Your task to perform on an android device: delete browsing data in the chrome app Image 0: 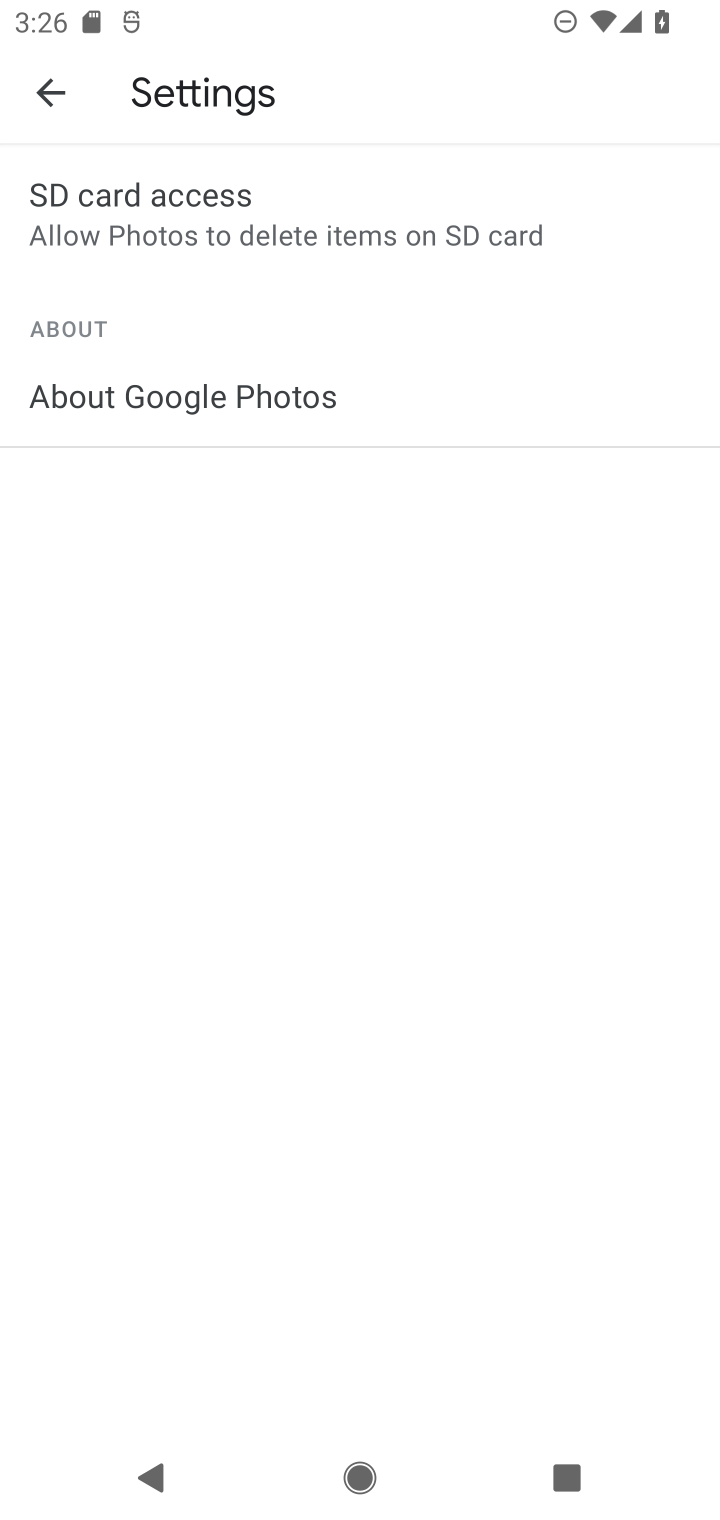
Step 0: press home button
Your task to perform on an android device: delete browsing data in the chrome app Image 1: 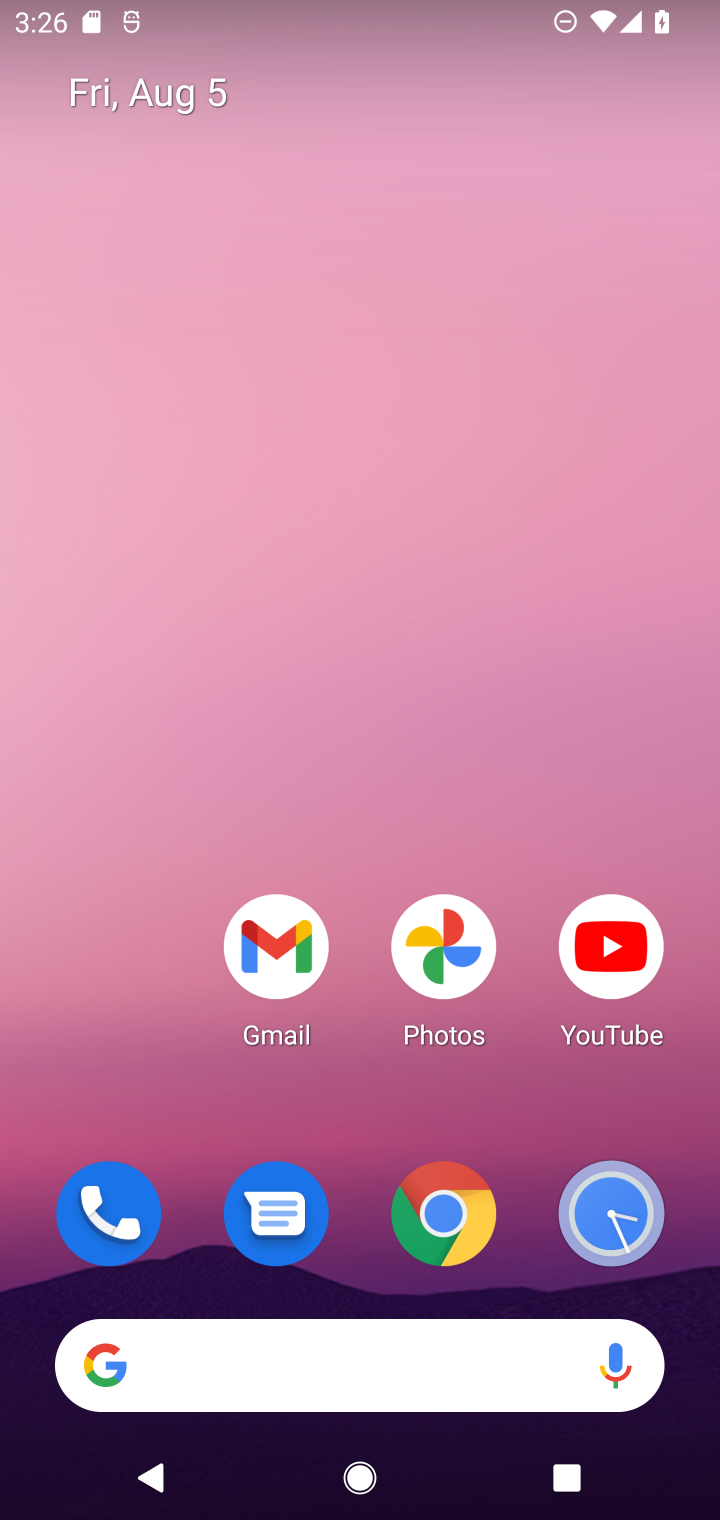
Step 1: click (445, 1212)
Your task to perform on an android device: delete browsing data in the chrome app Image 2: 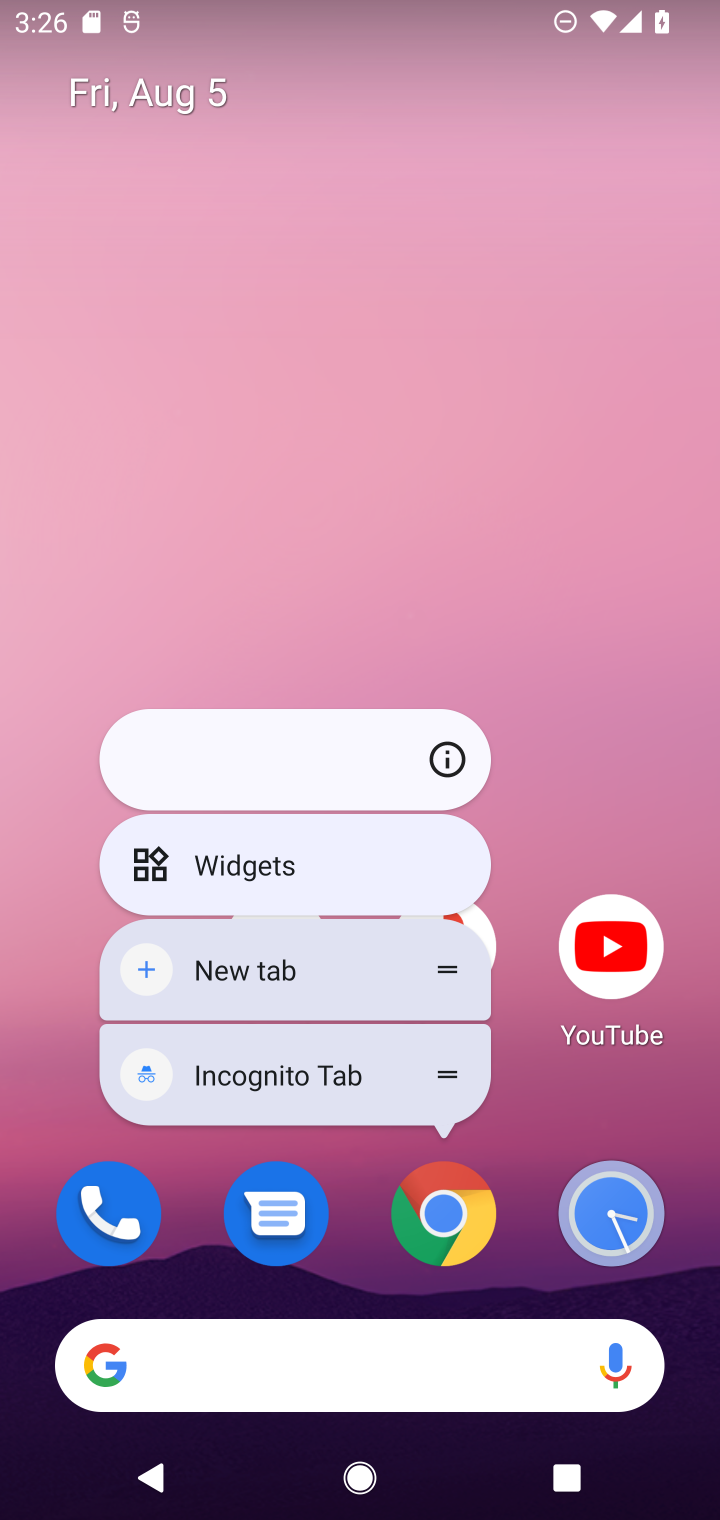
Step 2: click (445, 1212)
Your task to perform on an android device: delete browsing data in the chrome app Image 3: 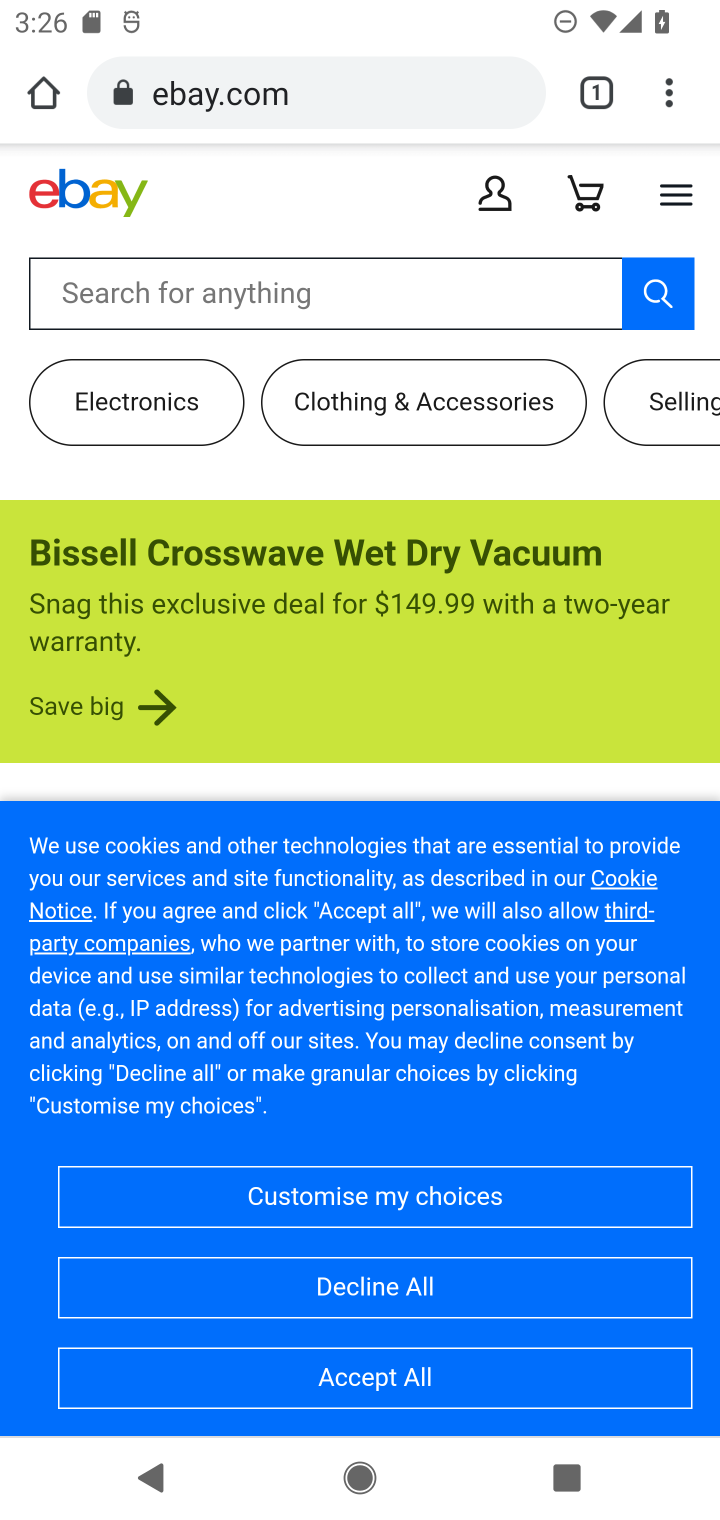
Step 3: click (665, 84)
Your task to perform on an android device: delete browsing data in the chrome app Image 4: 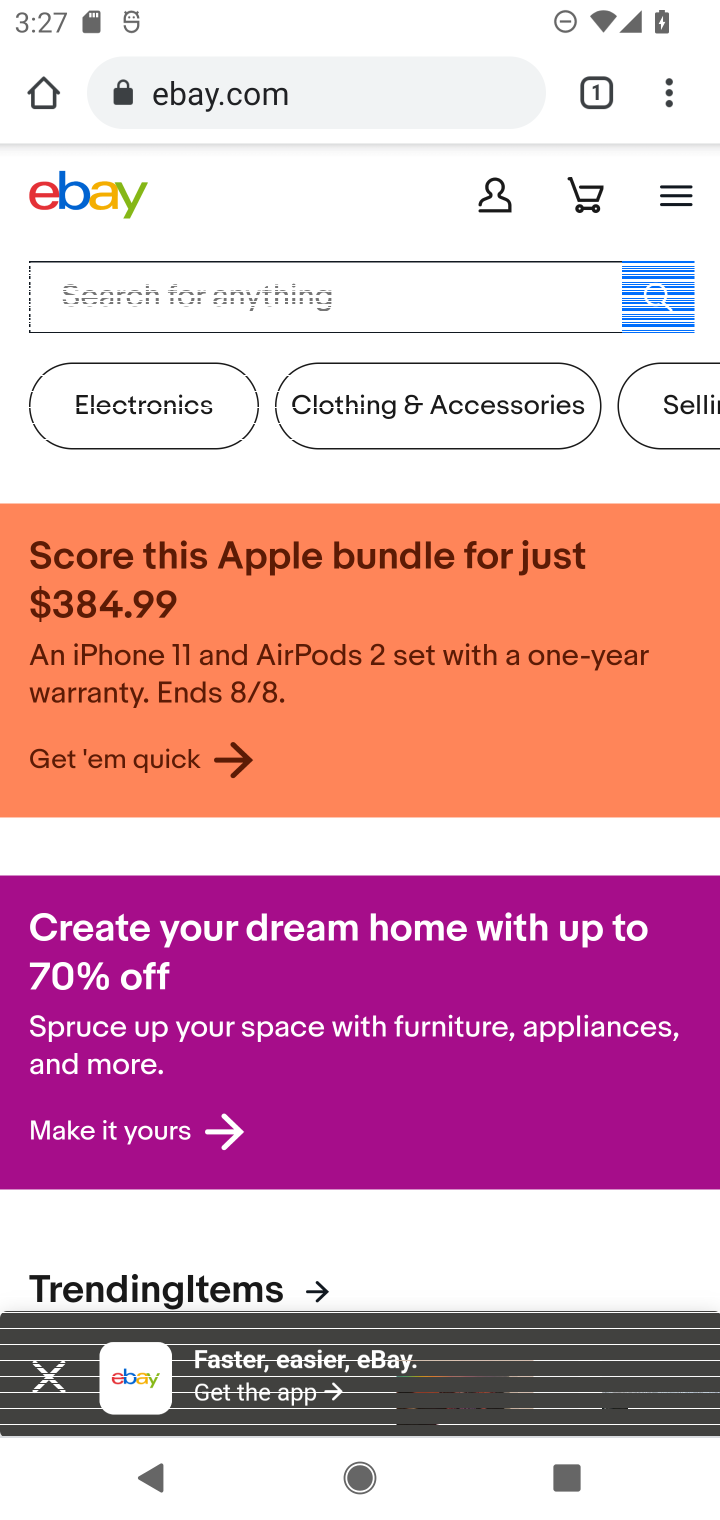
Step 4: click (665, 84)
Your task to perform on an android device: delete browsing data in the chrome app Image 5: 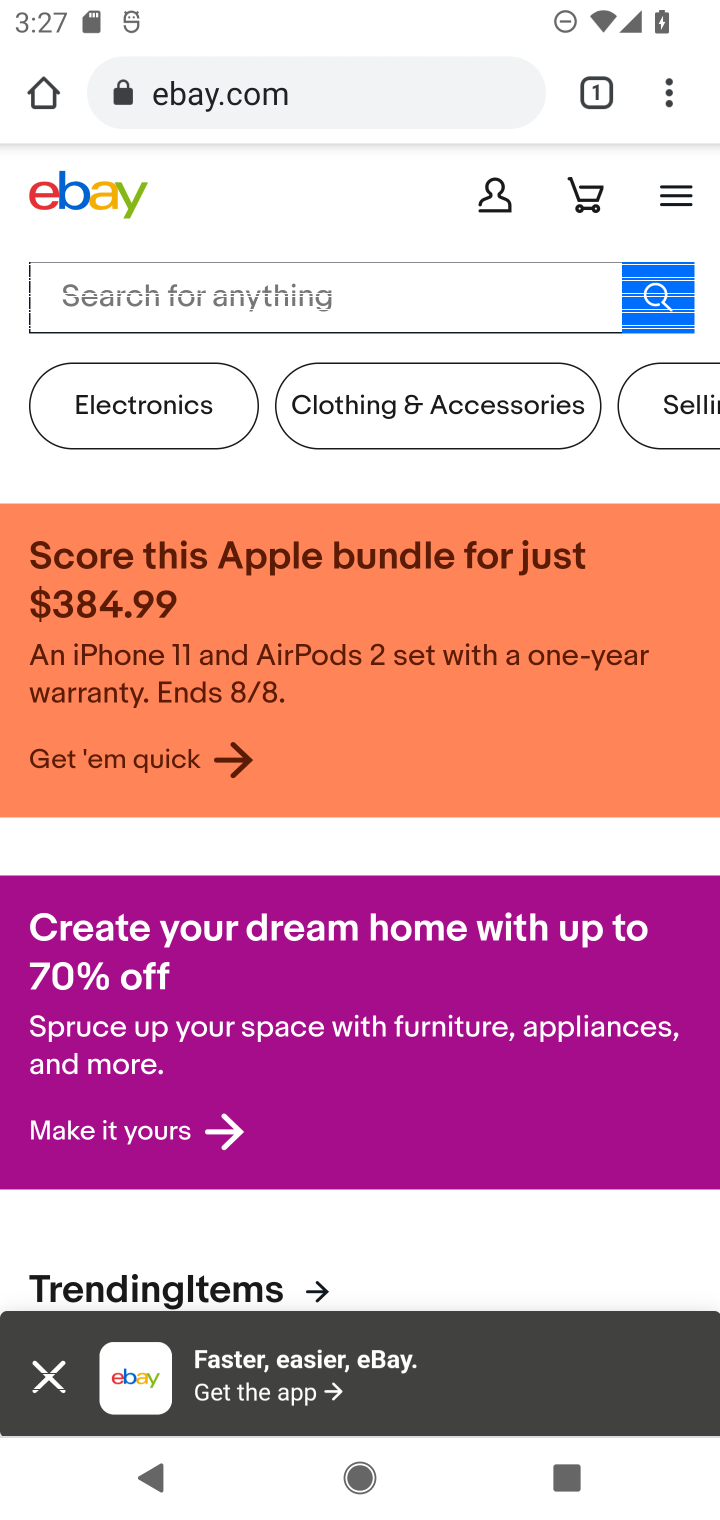
Step 5: click (668, 110)
Your task to perform on an android device: delete browsing data in the chrome app Image 6: 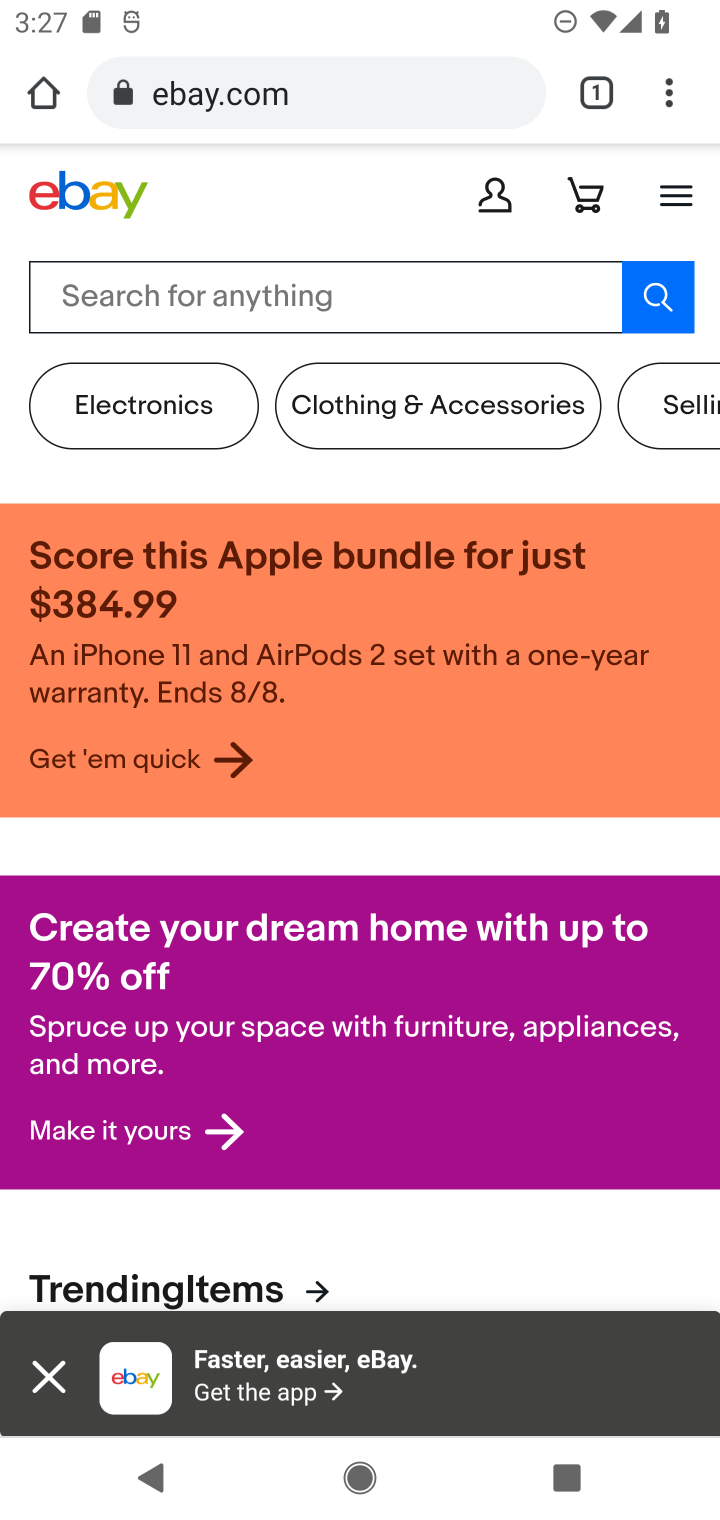
Step 6: click (668, 85)
Your task to perform on an android device: delete browsing data in the chrome app Image 7: 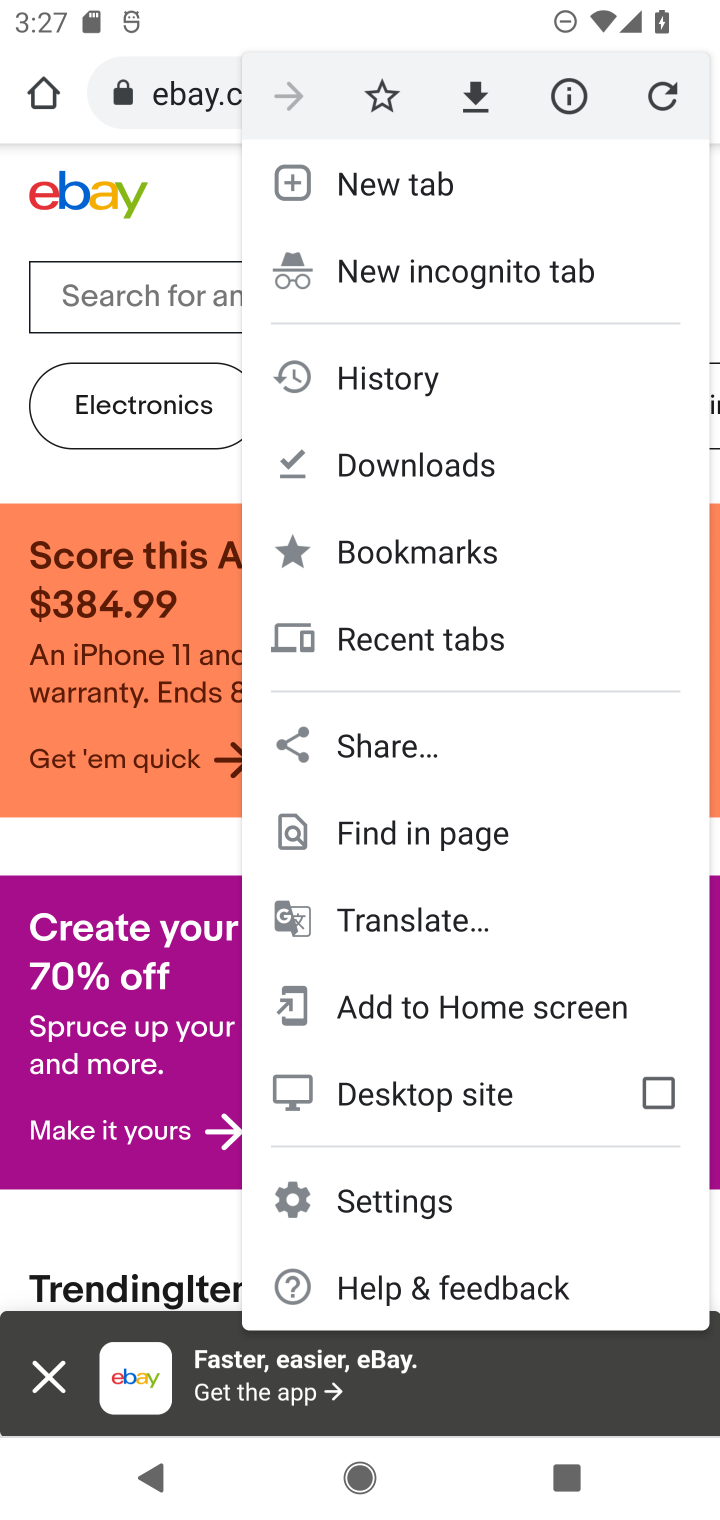
Step 7: click (420, 369)
Your task to perform on an android device: delete browsing data in the chrome app Image 8: 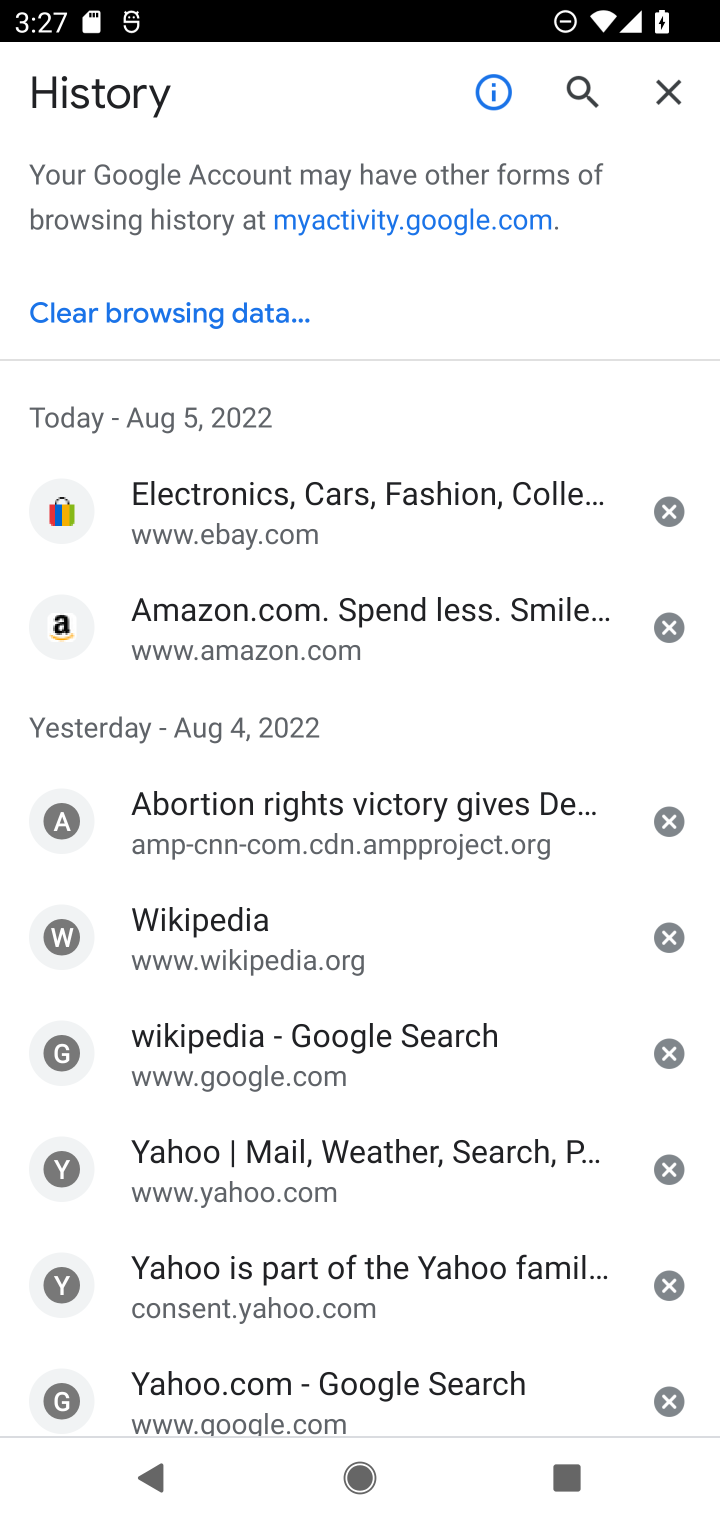
Step 8: click (202, 311)
Your task to perform on an android device: delete browsing data in the chrome app Image 9: 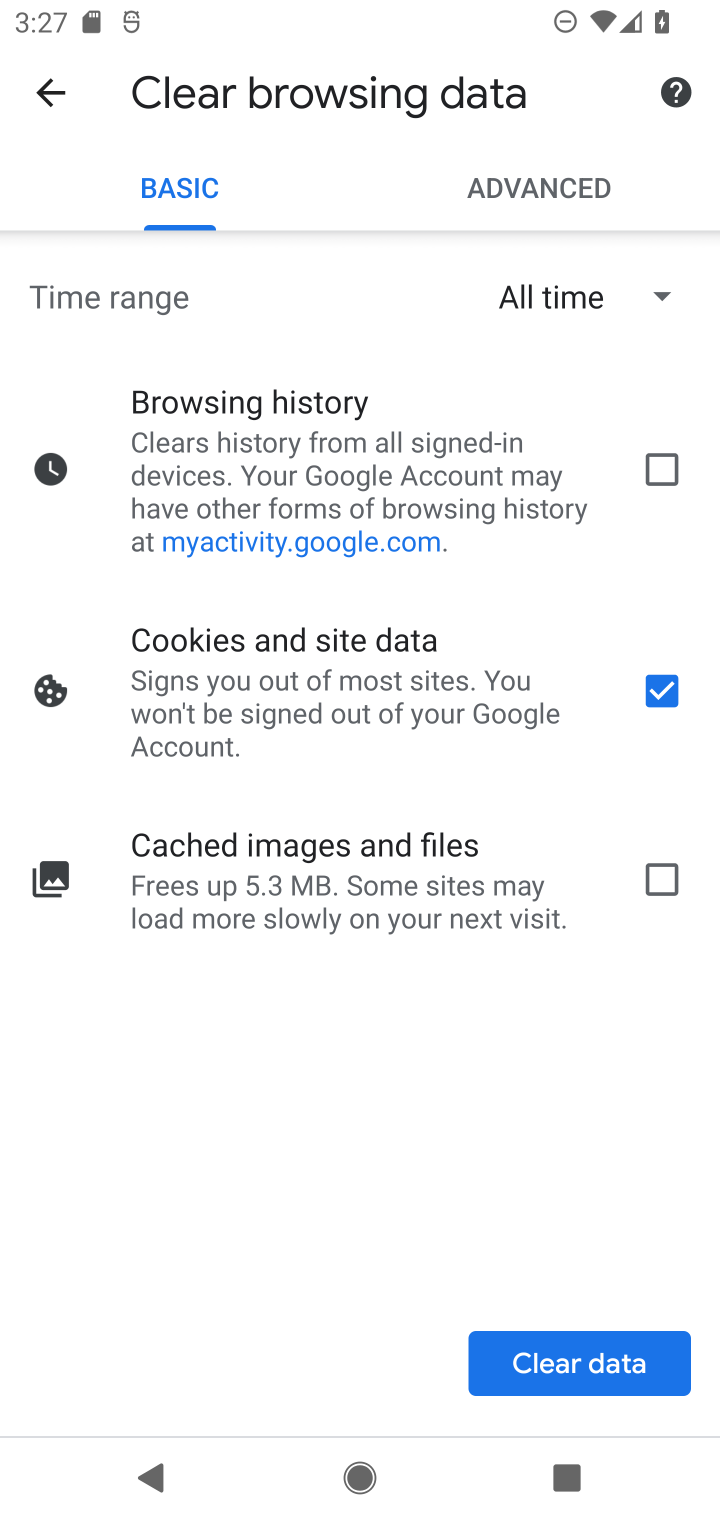
Step 9: click (669, 460)
Your task to perform on an android device: delete browsing data in the chrome app Image 10: 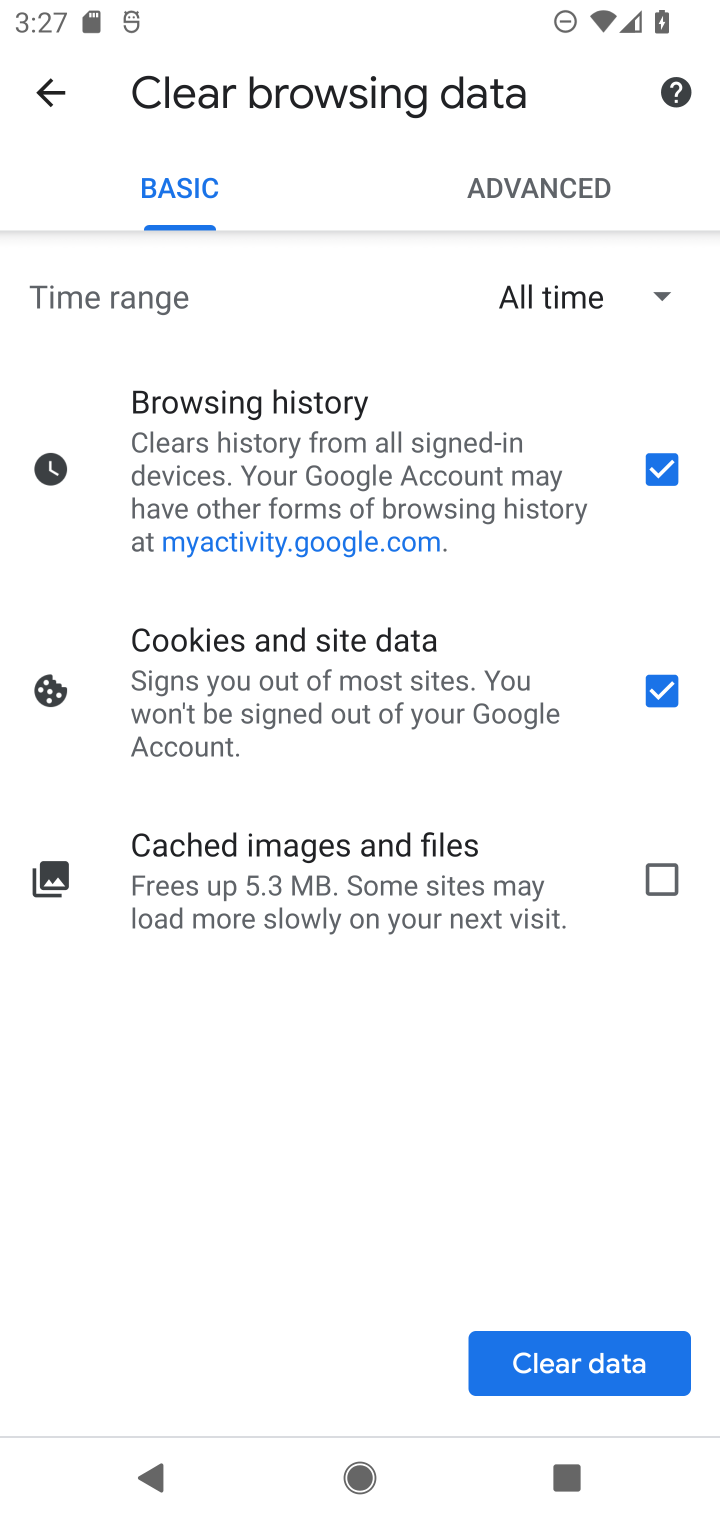
Step 10: click (650, 875)
Your task to perform on an android device: delete browsing data in the chrome app Image 11: 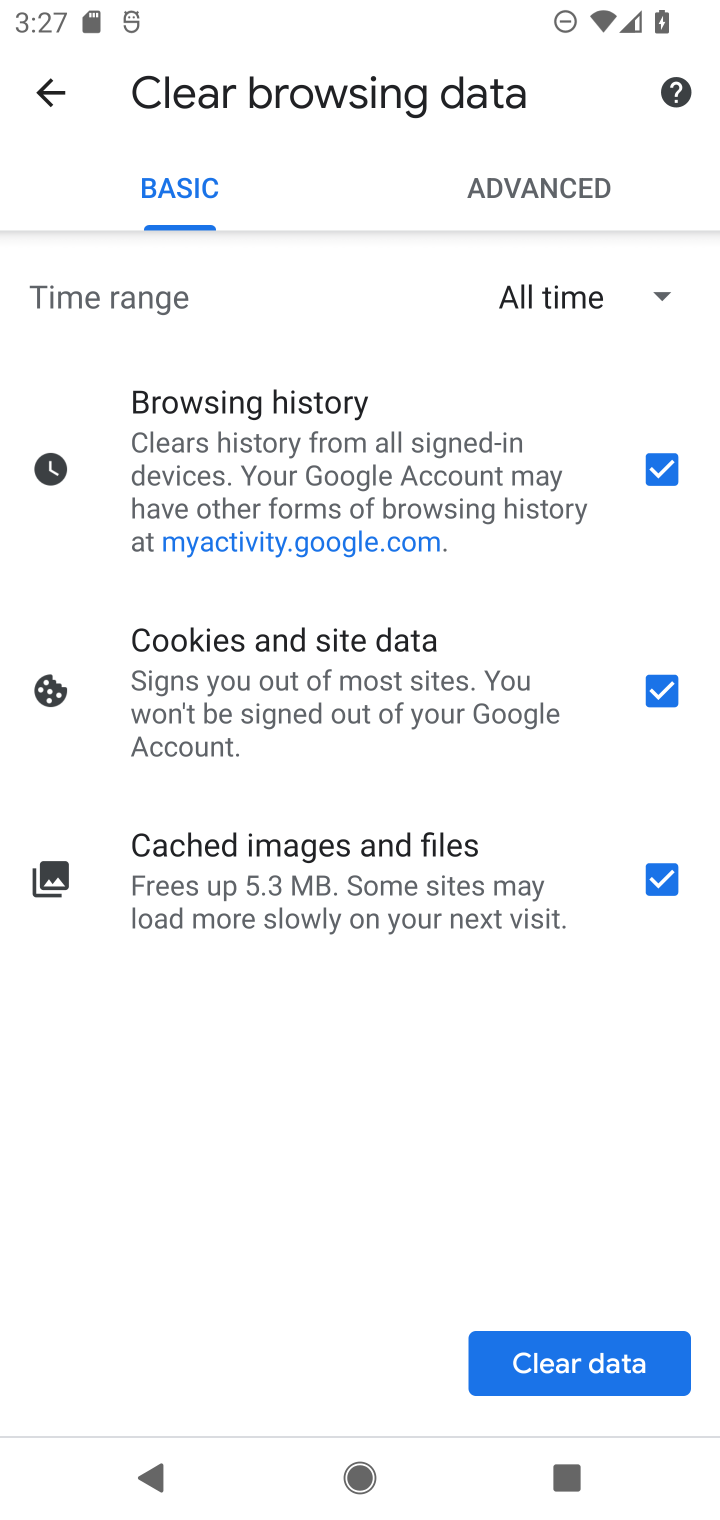
Step 11: click (637, 1352)
Your task to perform on an android device: delete browsing data in the chrome app Image 12: 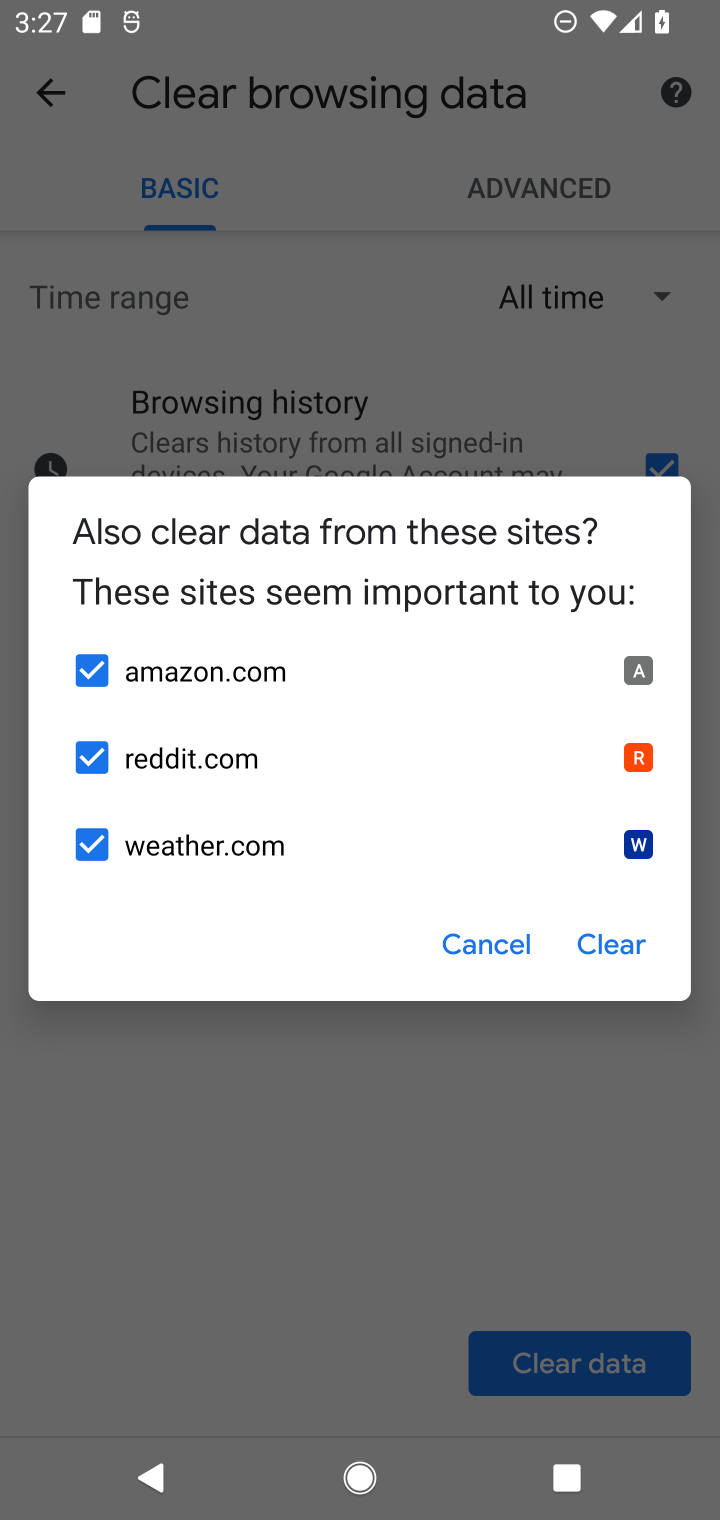
Step 12: click (628, 938)
Your task to perform on an android device: delete browsing data in the chrome app Image 13: 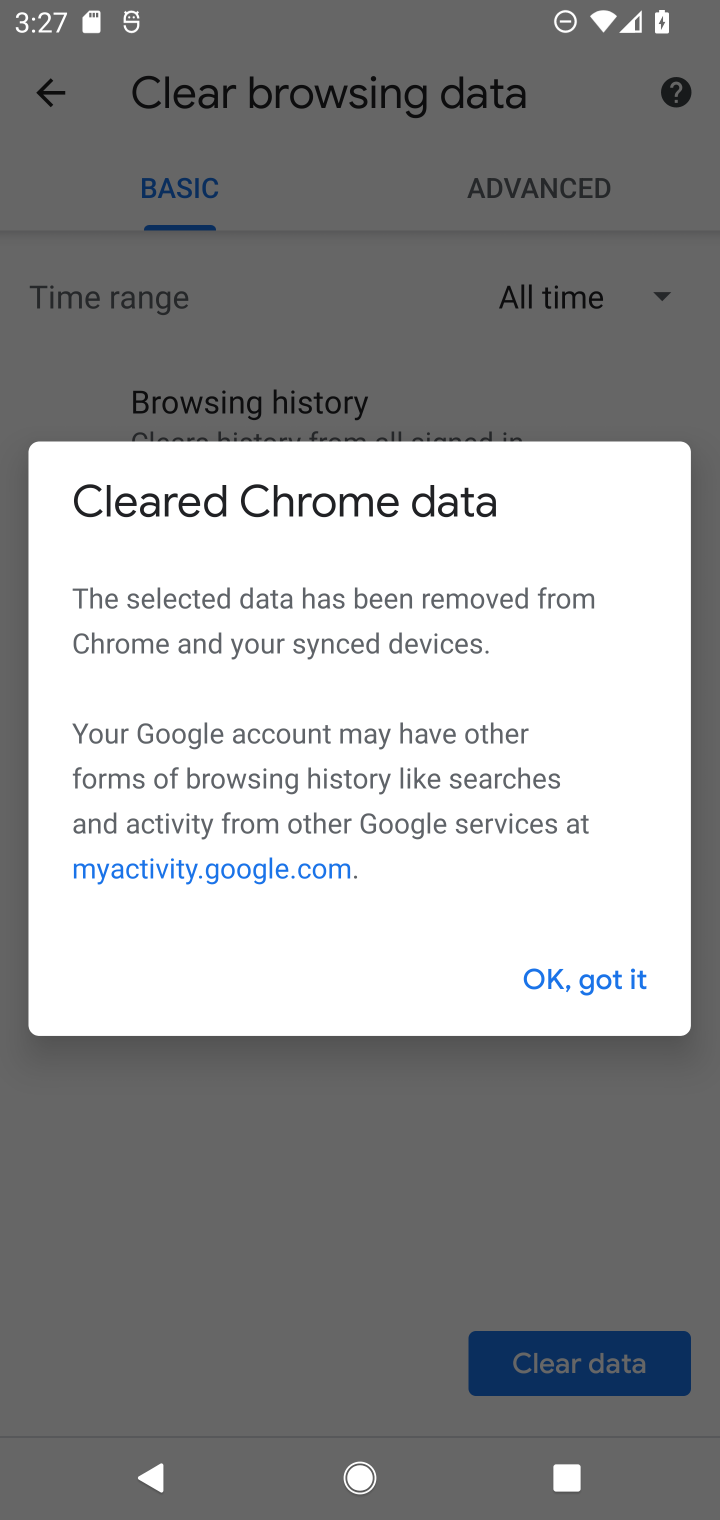
Step 13: click (606, 979)
Your task to perform on an android device: delete browsing data in the chrome app Image 14: 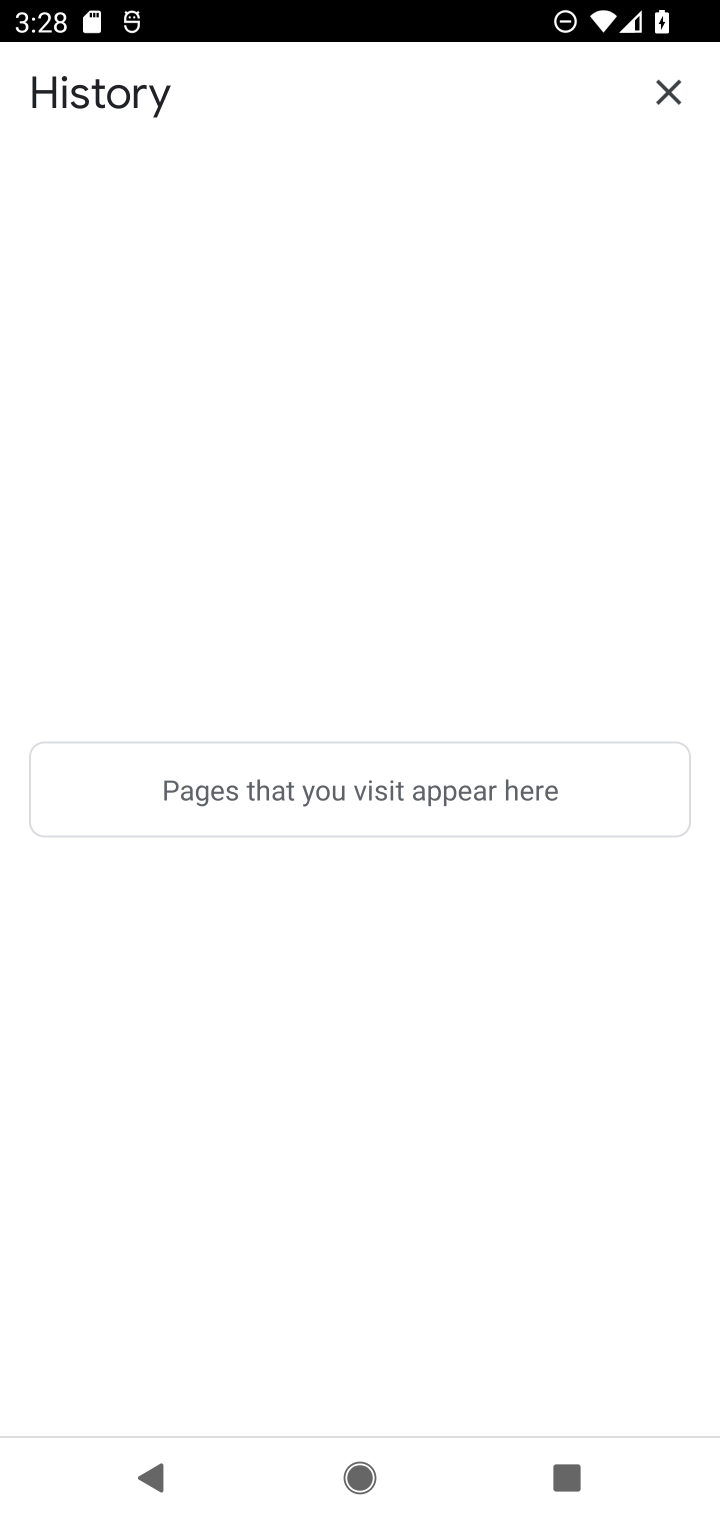
Step 14: task complete